Your task to perform on an android device: Go to display settings Image 0: 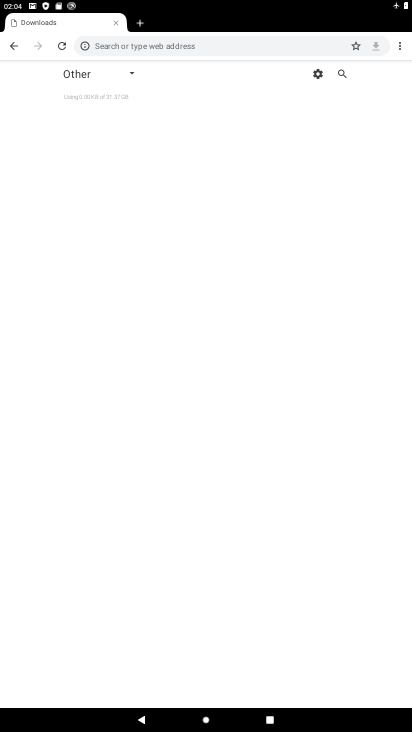
Step 0: press home button
Your task to perform on an android device: Go to display settings Image 1: 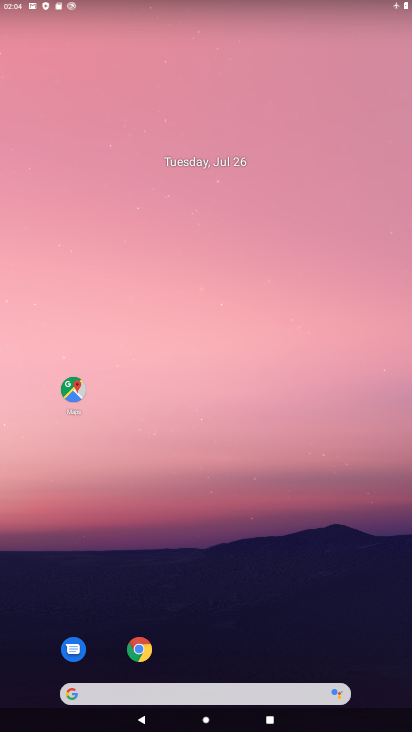
Step 1: drag from (196, 690) to (195, 210)
Your task to perform on an android device: Go to display settings Image 2: 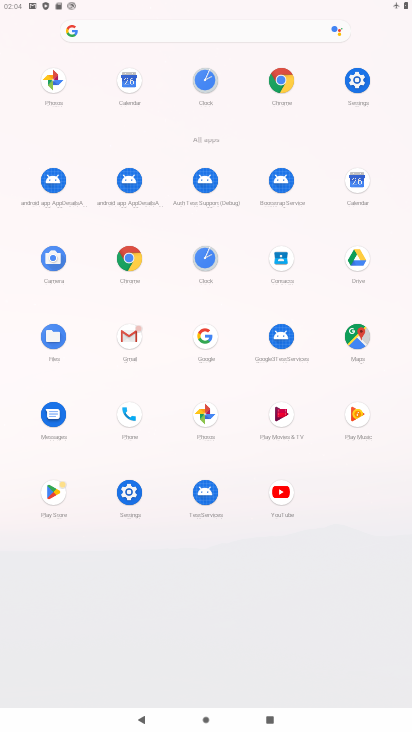
Step 2: click (129, 492)
Your task to perform on an android device: Go to display settings Image 3: 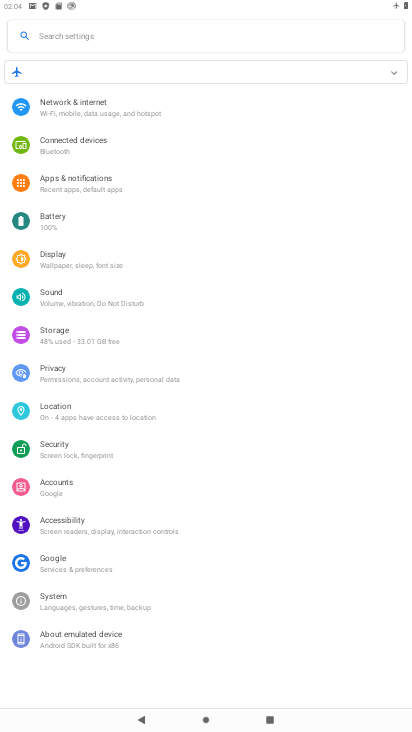
Step 3: click (62, 256)
Your task to perform on an android device: Go to display settings Image 4: 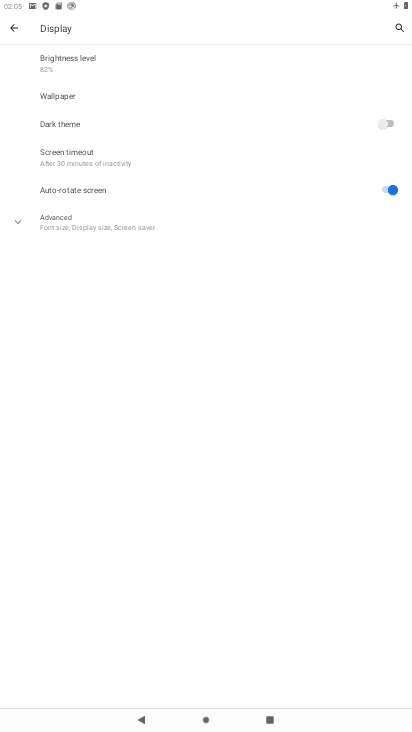
Step 4: task complete